Your task to perform on an android device: Open Chrome and go to the settings page Image 0: 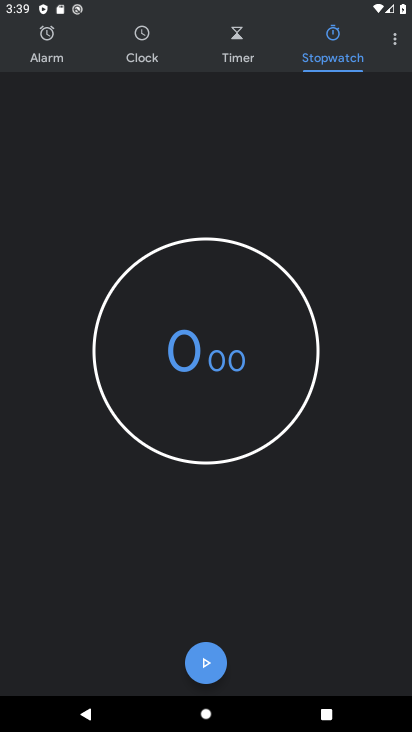
Step 0: drag from (284, 665) to (342, 191)
Your task to perform on an android device: Open Chrome and go to the settings page Image 1: 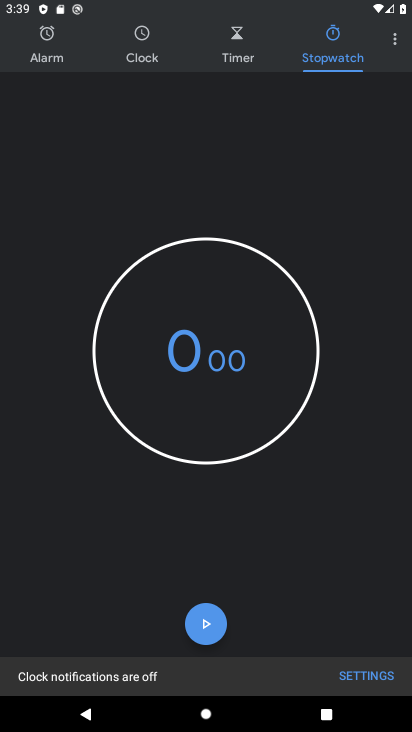
Step 1: press home button
Your task to perform on an android device: Open Chrome and go to the settings page Image 2: 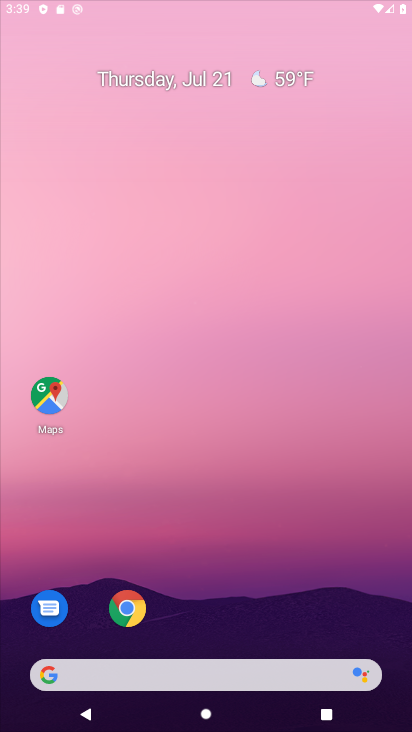
Step 2: drag from (263, 689) to (208, 39)
Your task to perform on an android device: Open Chrome and go to the settings page Image 3: 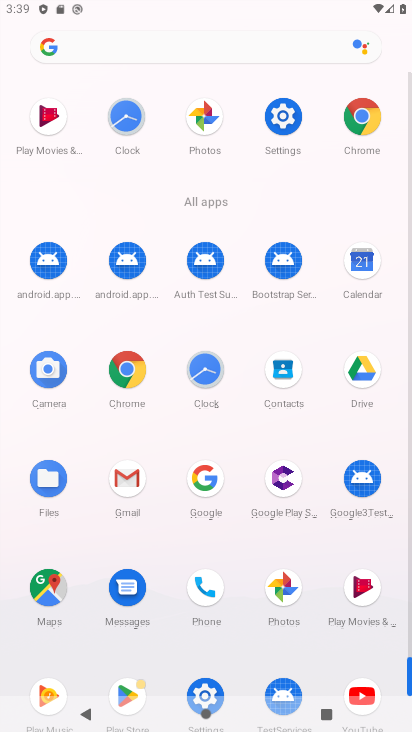
Step 3: click (125, 357)
Your task to perform on an android device: Open Chrome and go to the settings page Image 4: 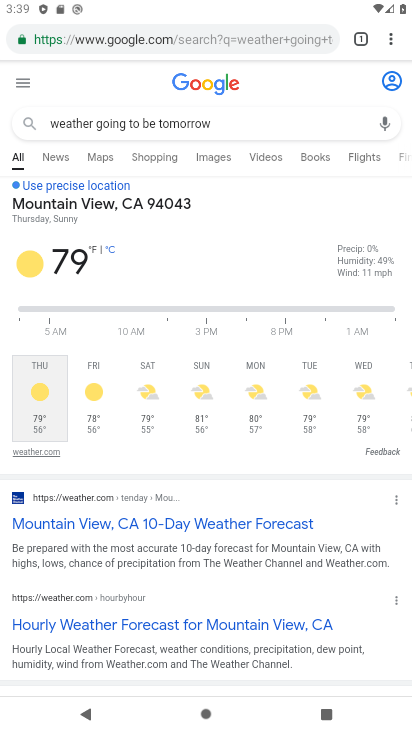
Step 4: task complete